Your task to perform on an android device: add a label to a message in the gmail app Image 0: 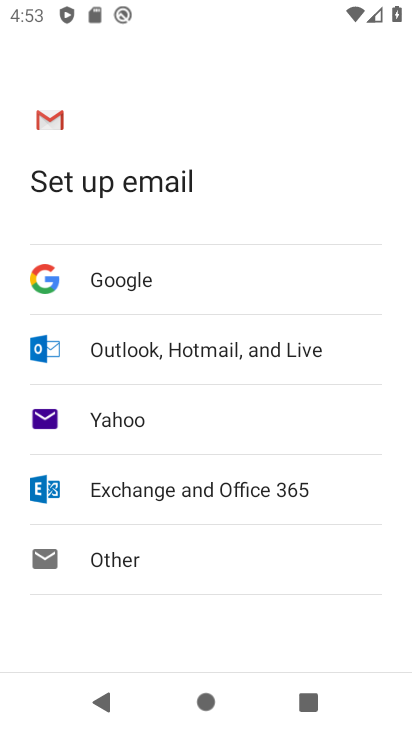
Step 0: press home button
Your task to perform on an android device: add a label to a message in the gmail app Image 1: 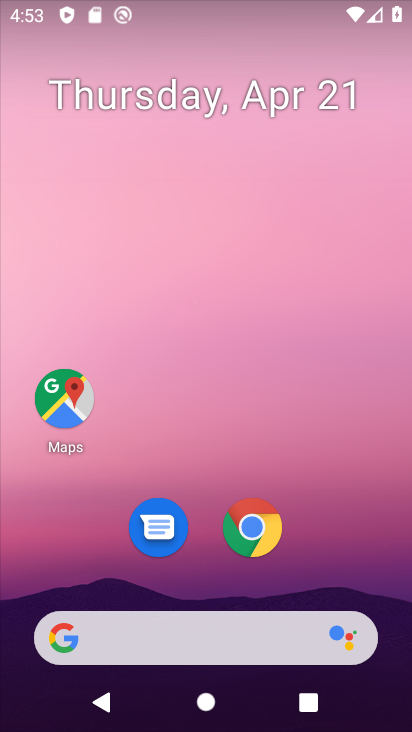
Step 1: drag from (370, 342) to (366, 174)
Your task to perform on an android device: add a label to a message in the gmail app Image 2: 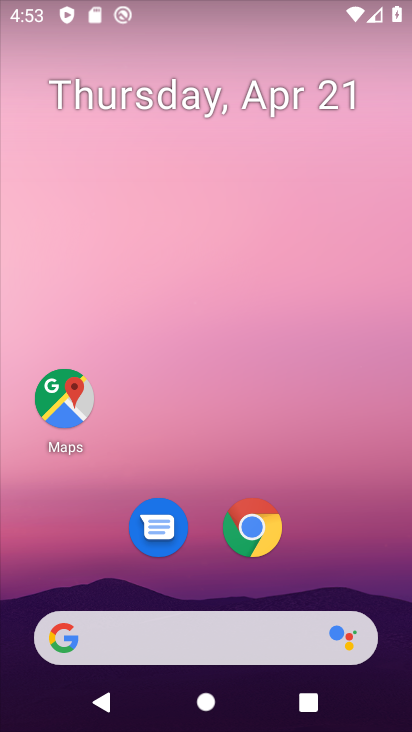
Step 2: click (359, 186)
Your task to perform on an android device: add a label to a message in the gmail app Image 3: 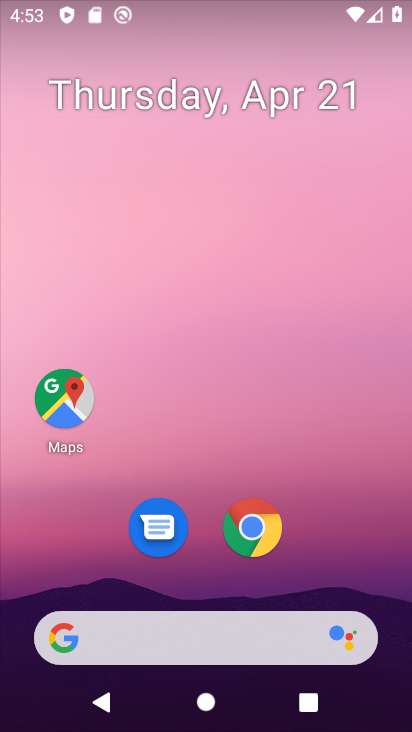
Step 3: drag from (389, 508) to (389, 278)
Your task to perform on an android device: add a label to a message in the gmail app Image 4: 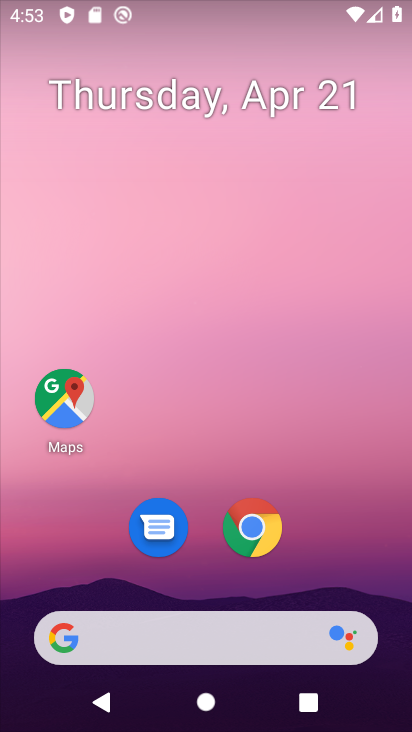
Step 4: drag from (394, 622) to (374, 190)
Your task to perform on an android device: add a label to a message in the gmail app Image 5: 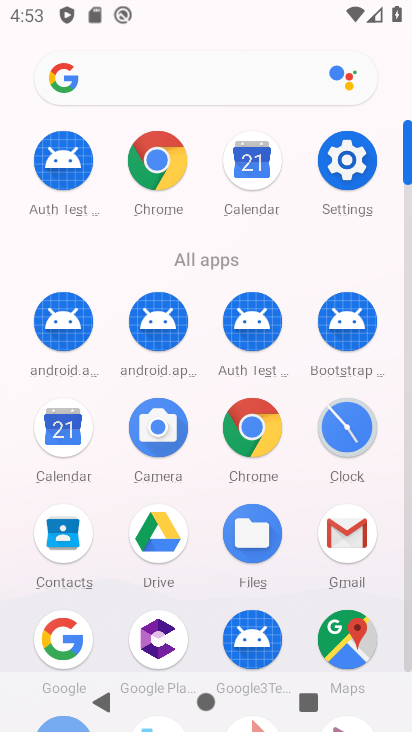
Step 5: click (354, 527)
Your task to perform on an android device: add a label to a message in the gmail app Image 6: 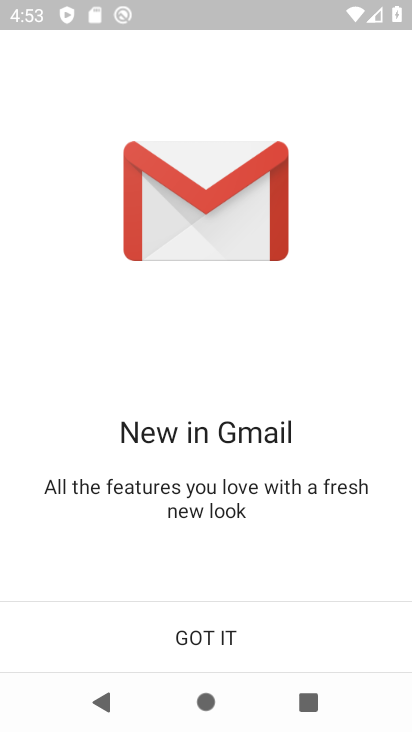
Step 6: click (190, 637)
Your task to perform on an android device: add a label to a message in the gmail app Image 7: 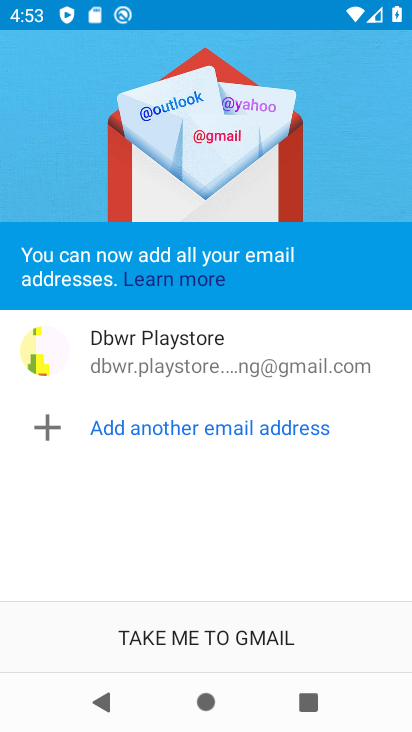
Step 7: click (191, 636)
Your task to perform on an android device: add a label to a message in the gmail app Image 8: 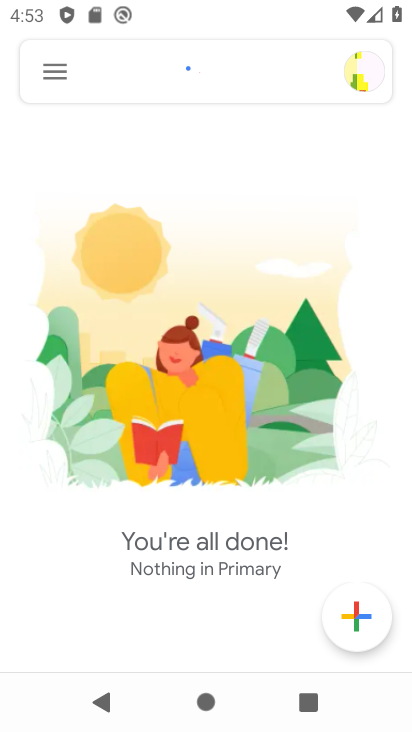
Step 8: click (42, 70)
Your task to perform on an android device: add a label to a message in the gmail app Image 9: 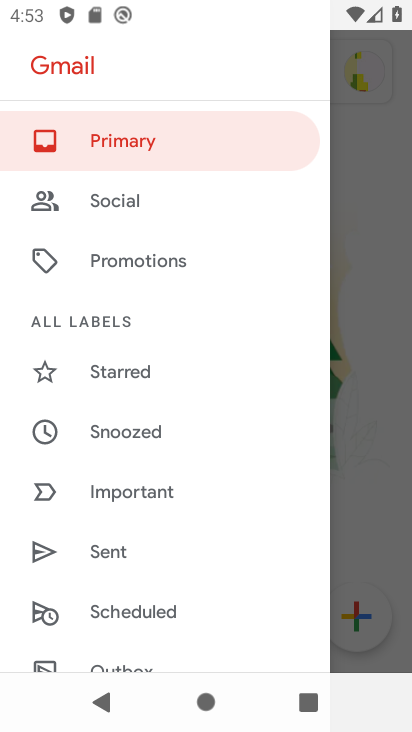
Step 9: click (127, 138)
Your task to perform on an android device: add a label to a message in the gmail app Image 10: 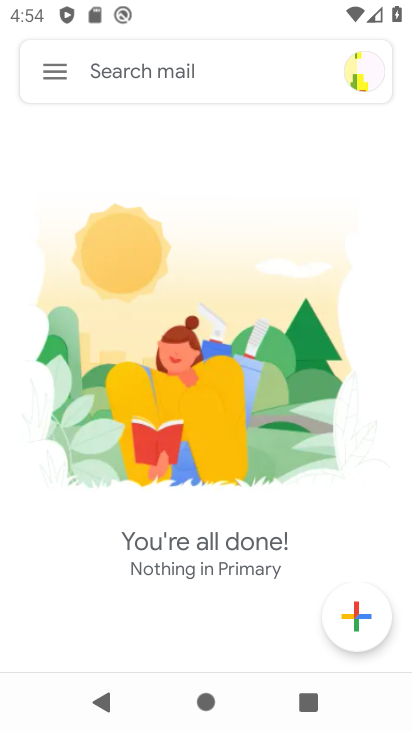
Step 10: task complete